Your task to perform on an android device: Go to sound settings Image 0: 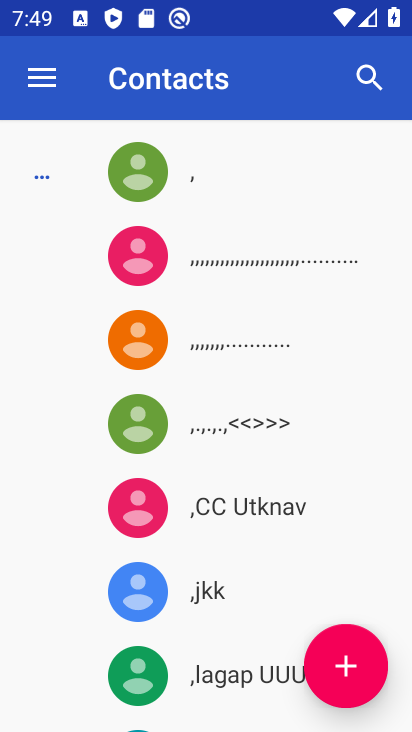
Step 0: press home button
Your task to perform on an android device: Go to sound settings Image 1: 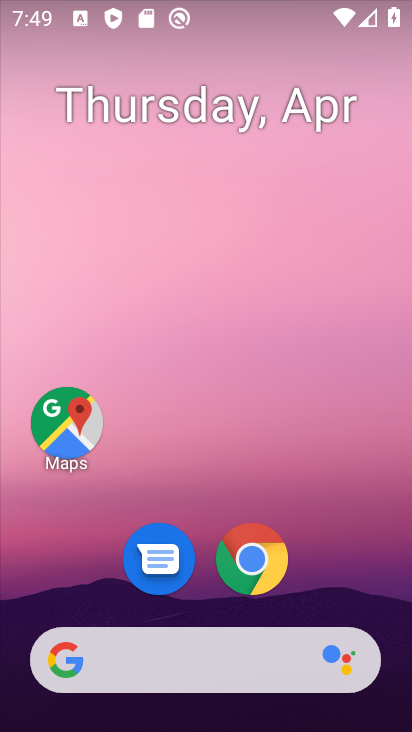
Step 1: drag from (210, 594) to (110, 18)
Your task to perform on an android device: Go to sound settings Image 2: 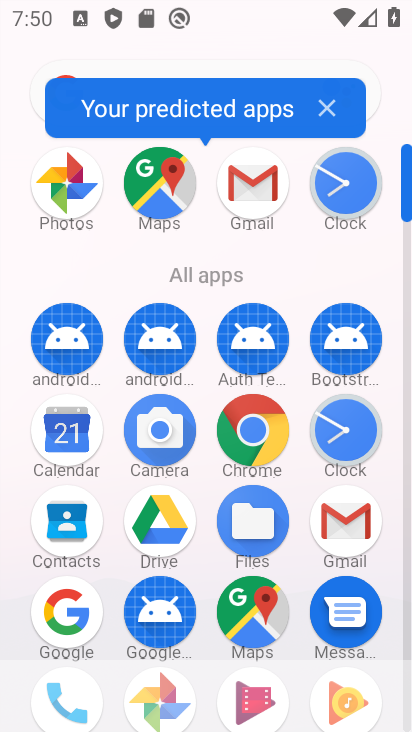
Step 2: drag from (238, 539) to (189, 74)
Your task to perform on an android device: Go to sound settings Image 3: 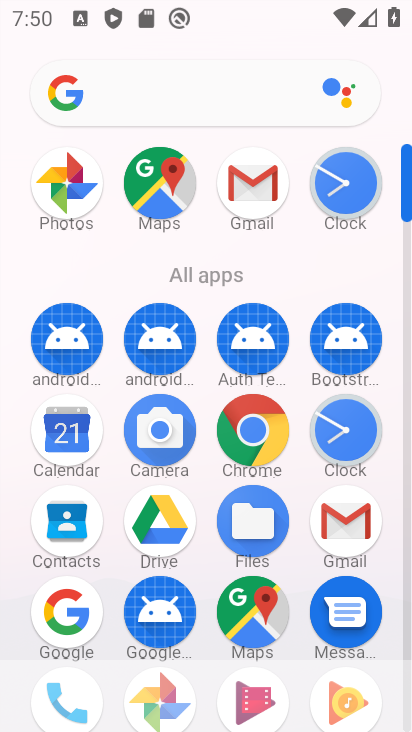
Step 3: drag from (334, 648) to (280, 6)
Your task to perform on an android device: Go to sound settings Image 4: 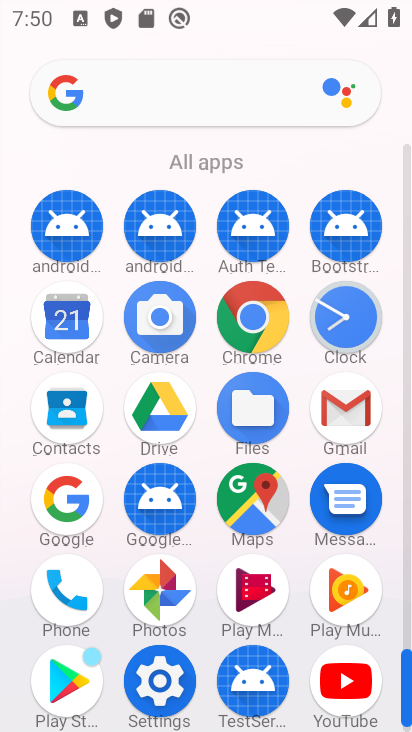
Step 4: click (155, 660)
Your task to perform on an android device: Go to sound settings Image 5: 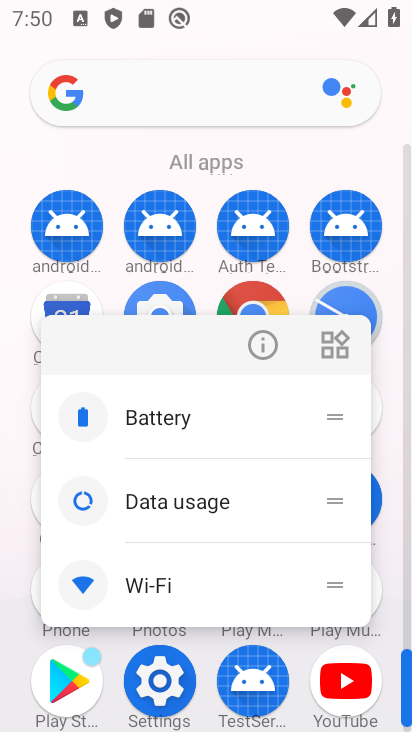
Step 5: click (155, 660)
Your task to perform on an android device: Go to sound settings Image 6: 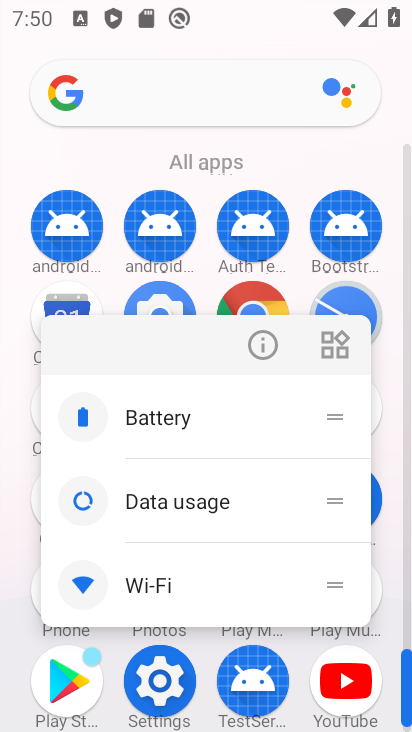
Step 6: click (155, 660)
Your task to perform on an android device: Go to sound settings Image 7: 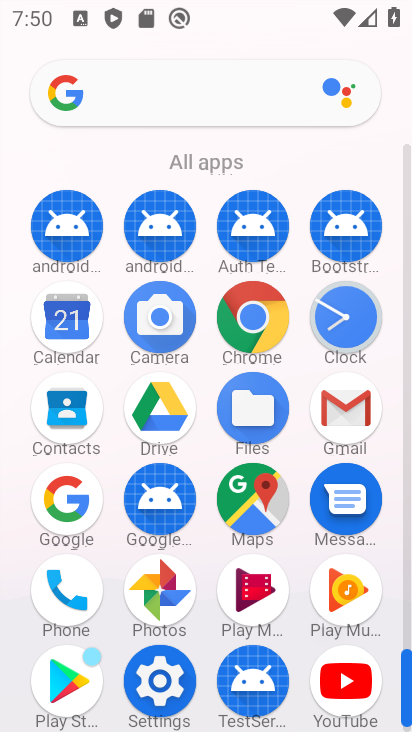
Step 7: click (155, 660)
Your task to perform on an android device: Go to sound settings Image 8: 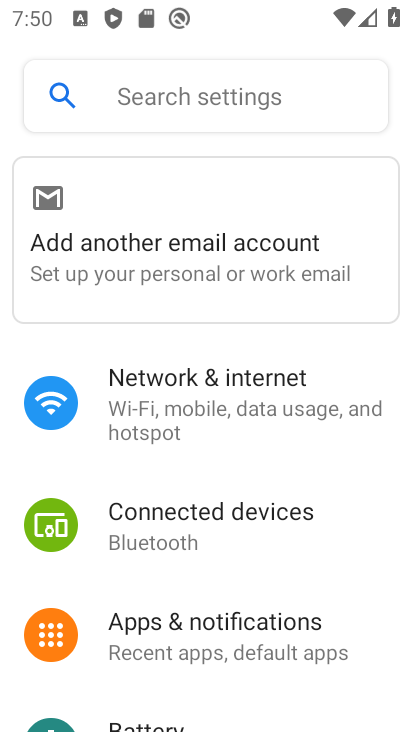
Step 8: drag from (301, 480) to (263, 2)
Your task to perform on an android device: Go to sound settings Image 9: 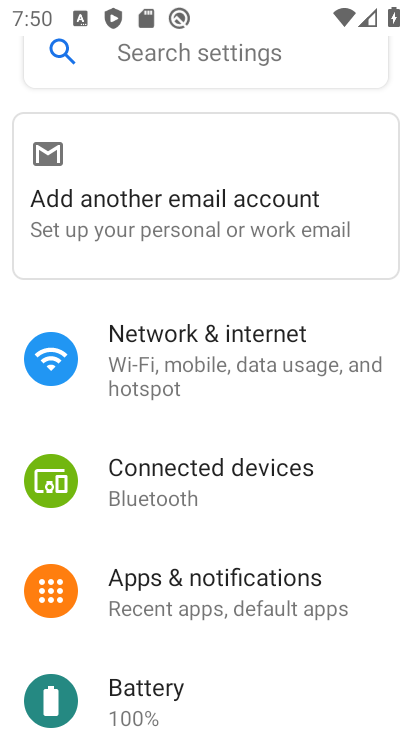
Step 9: drag from (282, 667) to (351, 8)
Your task to perform on an android device: Go to sound settings Image 10: 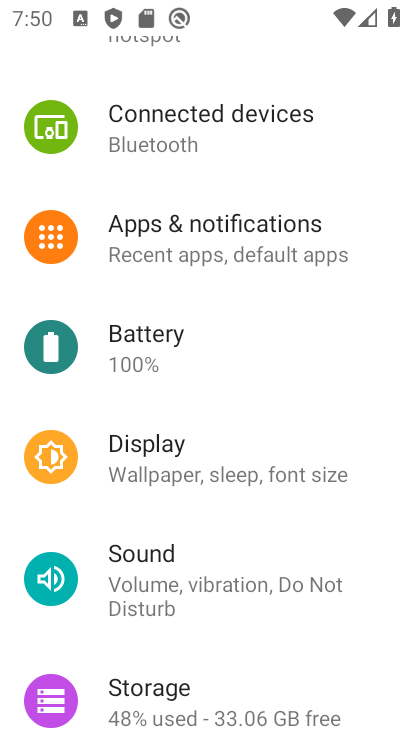
Step 10: click (231, 594)
Your task to perform on an android device: Go to sound settings Image 11: 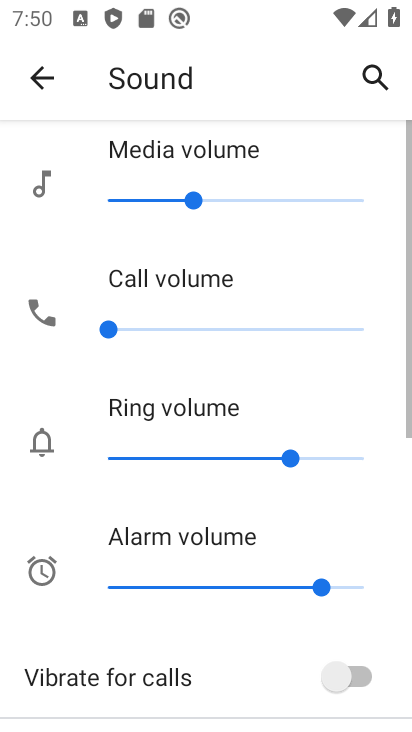
Step 11: task complete